Your task to perform on an android device: Open calendar and show me the fourth week of next month Image 0: 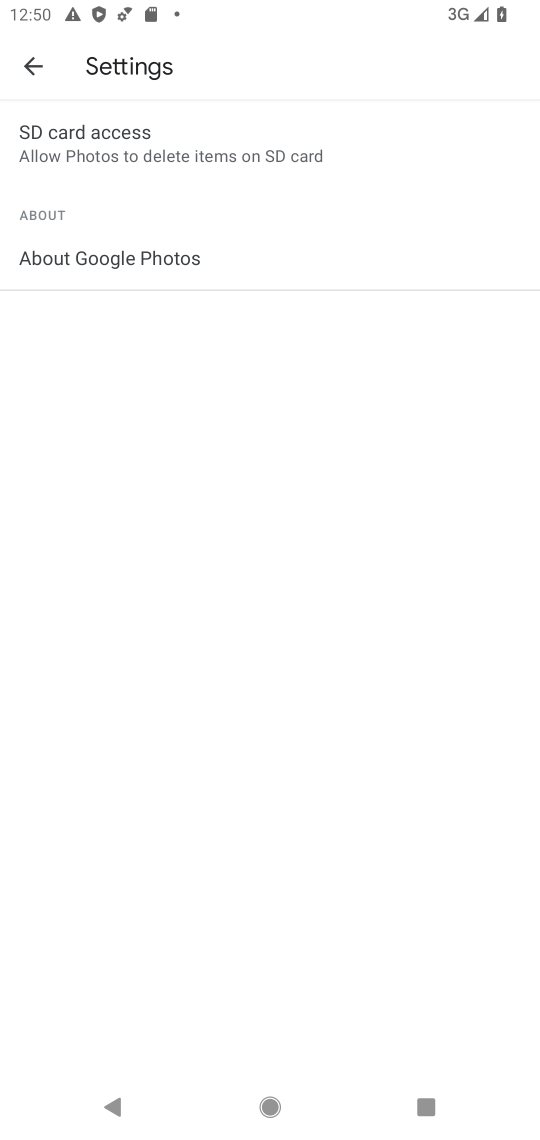
Step 0: drag from (266, 736) to (316, 508)
Your task to perform on an android device: Open calendar and show me the fourth week of next month Image 1: 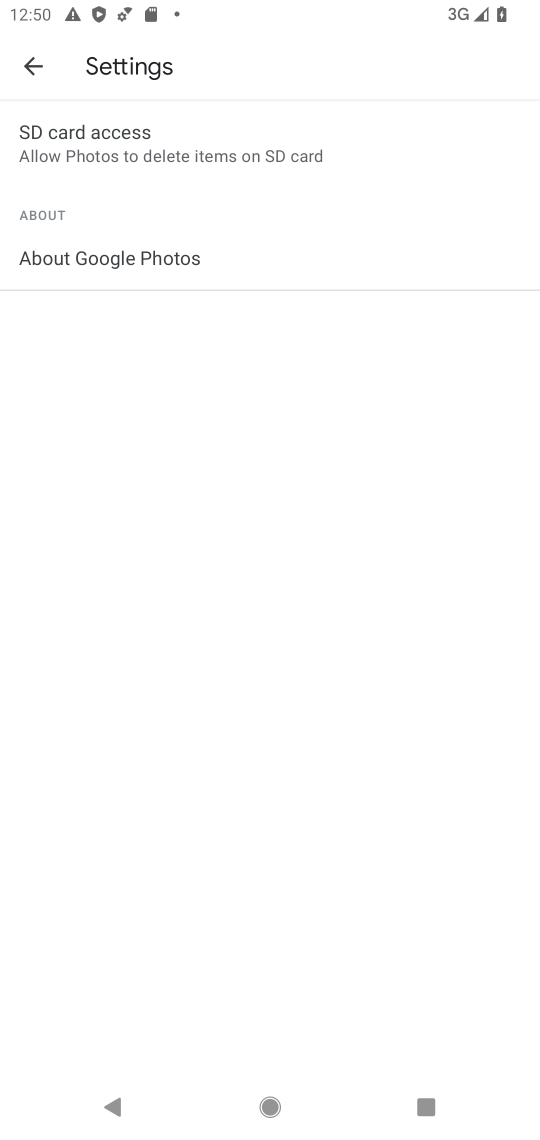
Step 1: press home button
Your task to perform on an android device: Open calendar and show me the fourth week of next month Image 2: 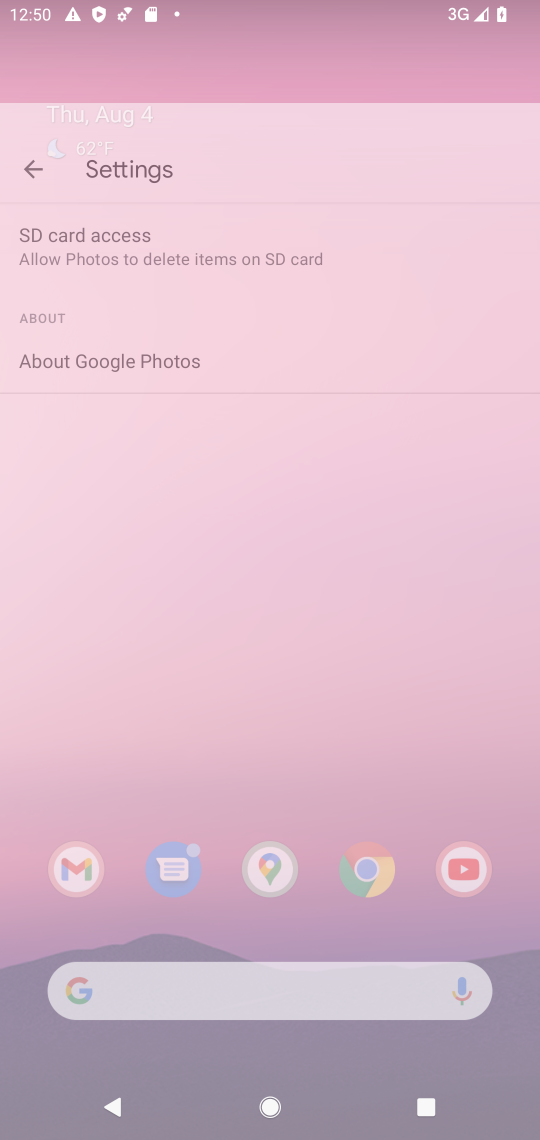
Step 2: drag from (266, 875) to (262, 472)
Your task to perform on an android device: Open calendar and show me the fourth week of next month Image 3: 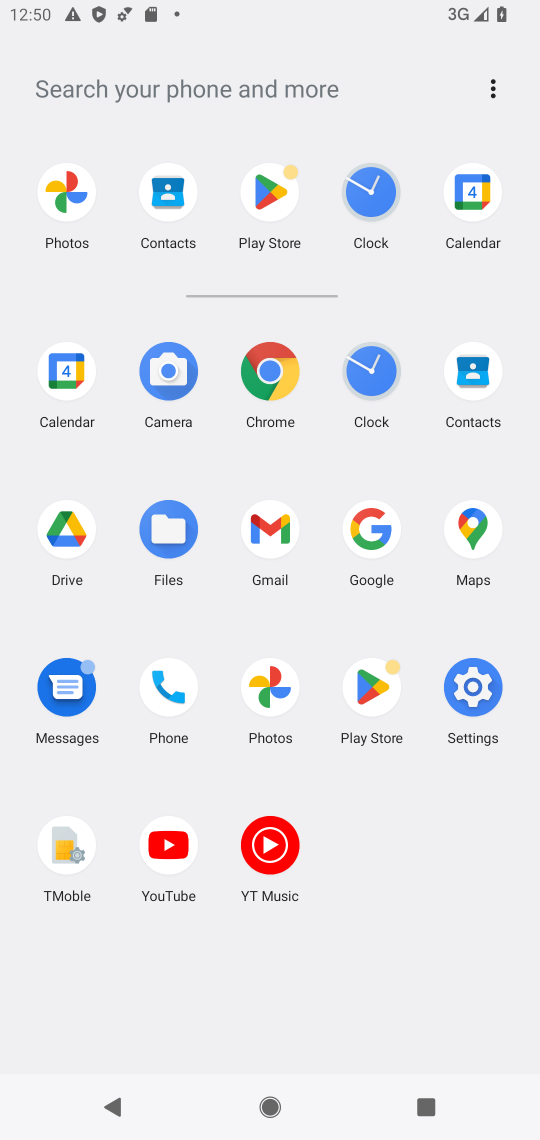
Step 3: click (58, 373)
Your task to perform on an android device: Open calendar and show me the fourth week of next month Image 4: 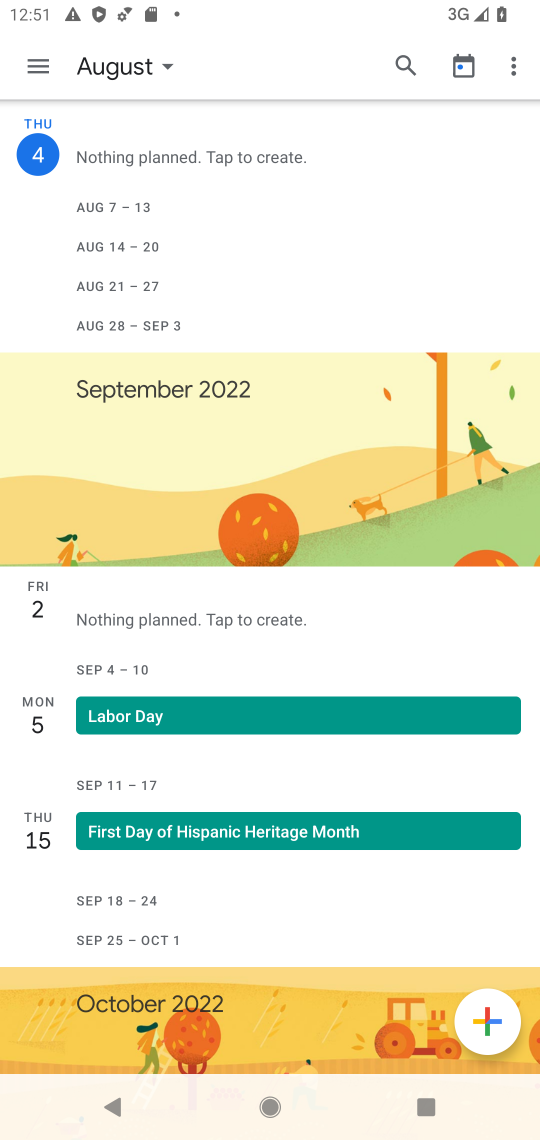
Step 4: click (107, 77)
Your task to perform on an android device: Open calendar and show me the fourth week of next month Image 5: 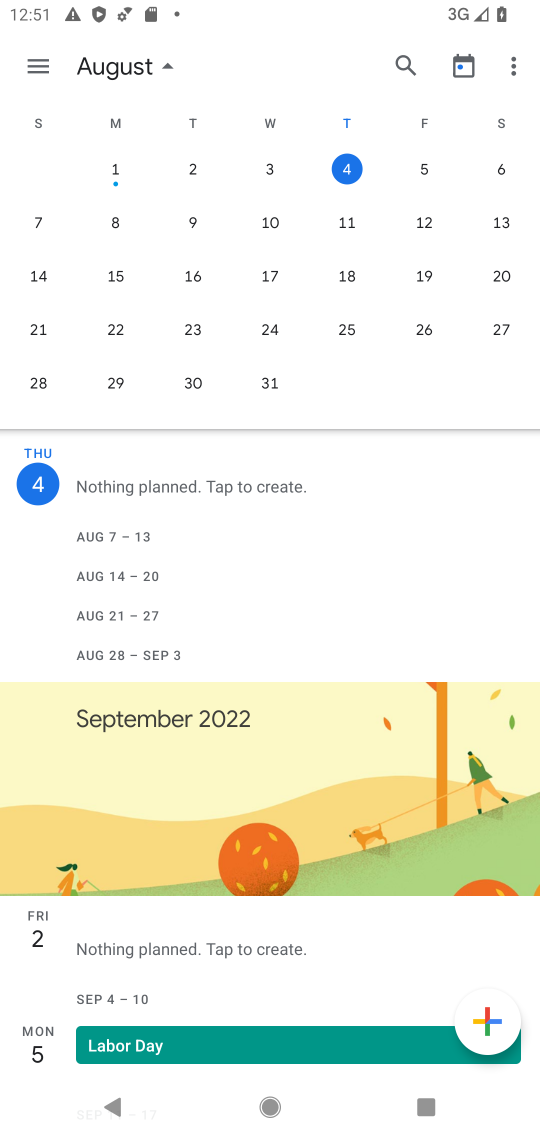
Step 5: drag from (374, 252) to (11, 504)
Your task to perform on an android device: Open calendar and show me the fourth week of next month Image 6: 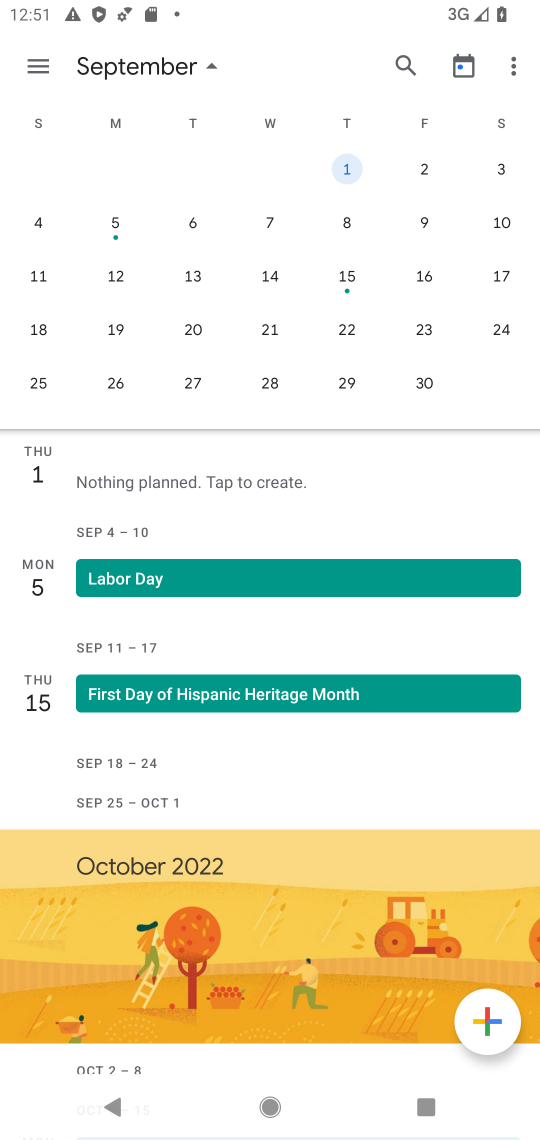
Step 6: click (351, 323)
Your task to perform on an android device: Open calendar and show me the fourth week of next month Image 7: 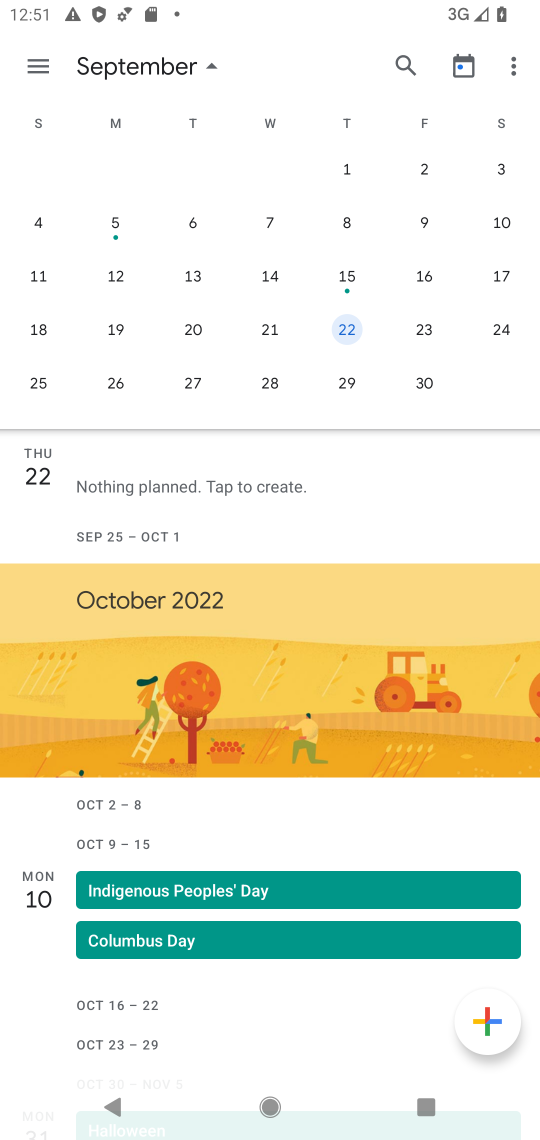
Step 7: click (414, 333)
Your task to perform on an android device: Open calendar and show me the fourth week of next month Image 8: 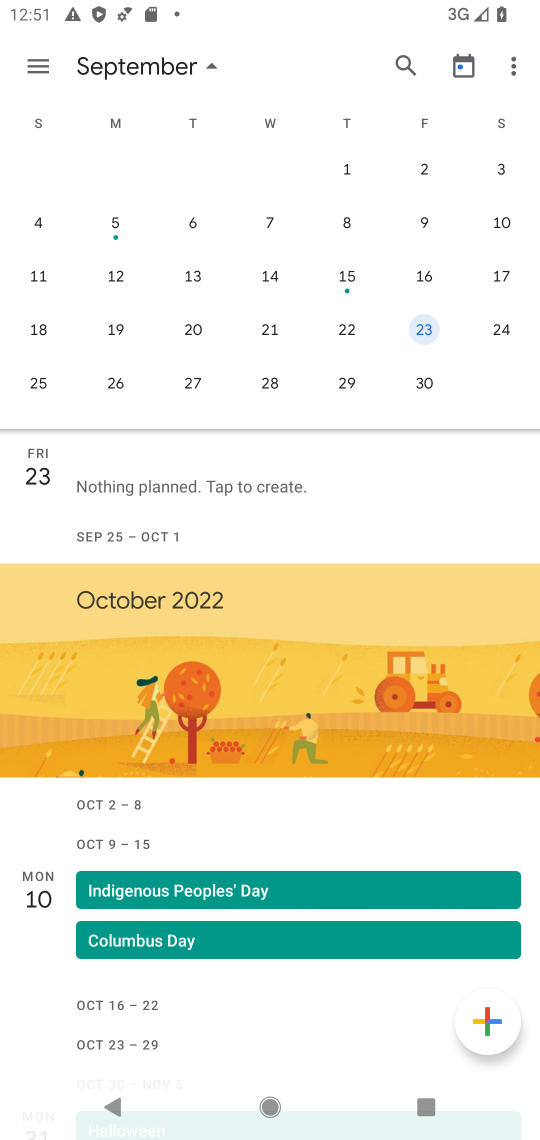
Step 8: task complete